Your task to perform on an android device: clear history in the chrome app Image 0: 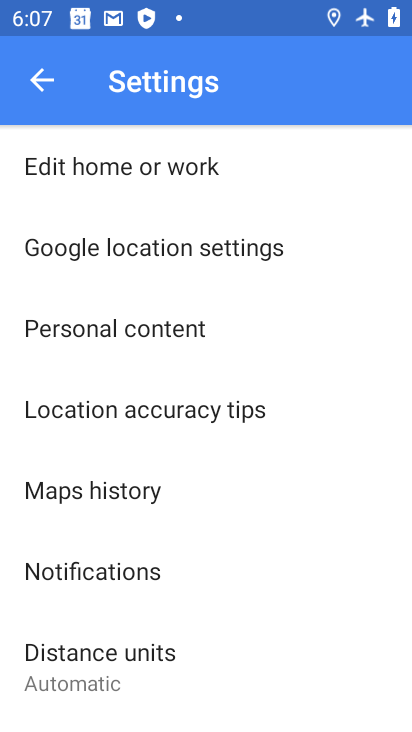
Step 0: press home button
Your task to perform on an android device: clear history in the chrome app Image 1: 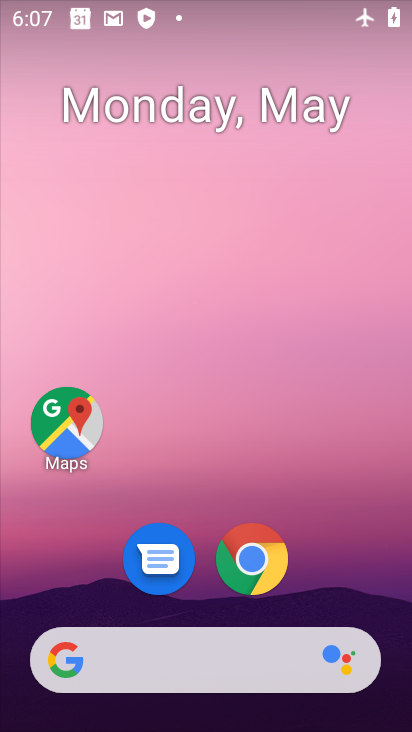
Step 1: click (249, 563)
Your task to perform on an android device: clear history in the chrome app Image 2: 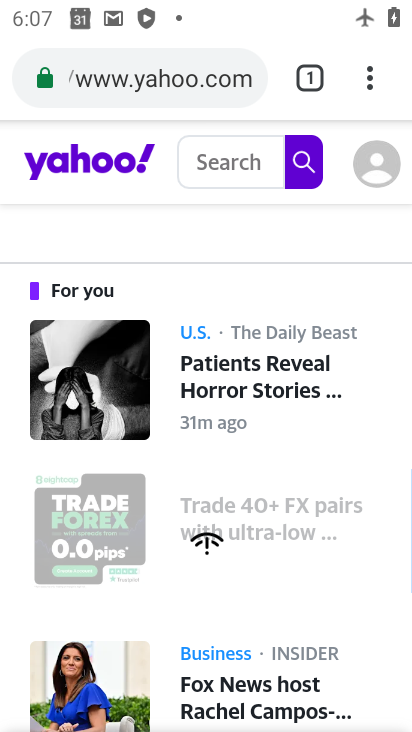
Step 2: click (372, 75)
Your task to perform on an android device: clear history in the chrome app Image 3: 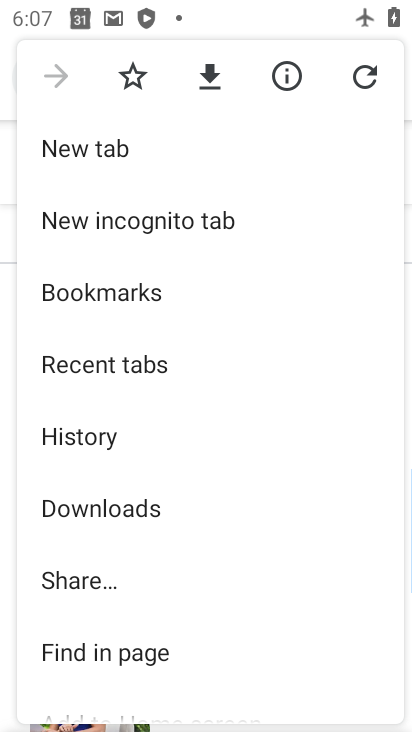
Step 3: click (108, 435)
Your task to perform on an android device: clear history in the chrome app Image 4: 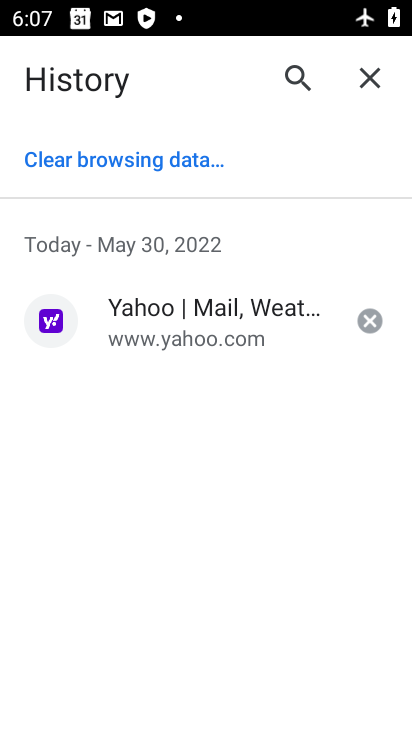
Step 4: click (118, 151)
Your task to perform on an android device: clear history in the chrome app Image 5: 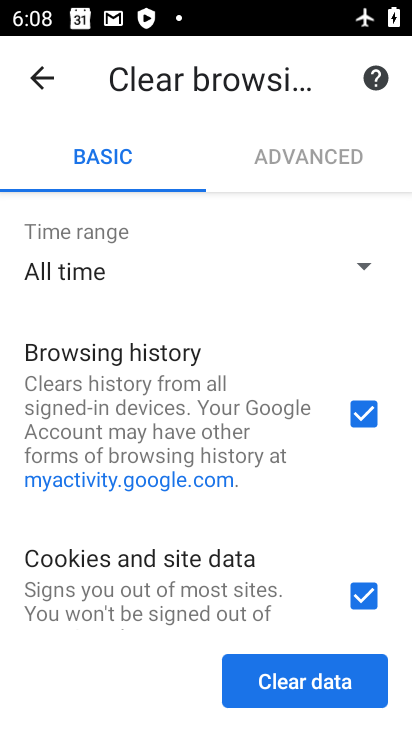
Step 5: click (320, 677)
Your task to perform on an android device: clear history in the chrome app Image 6: 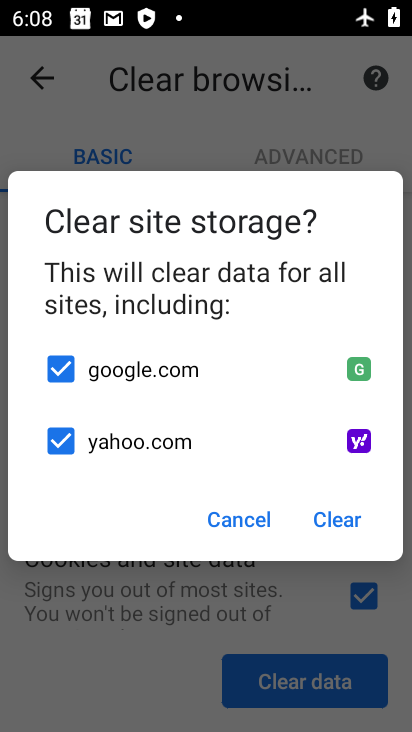
Step 6: click (339, 522)
Your task to perform on an android device: clear history in the chrome app Image 7: 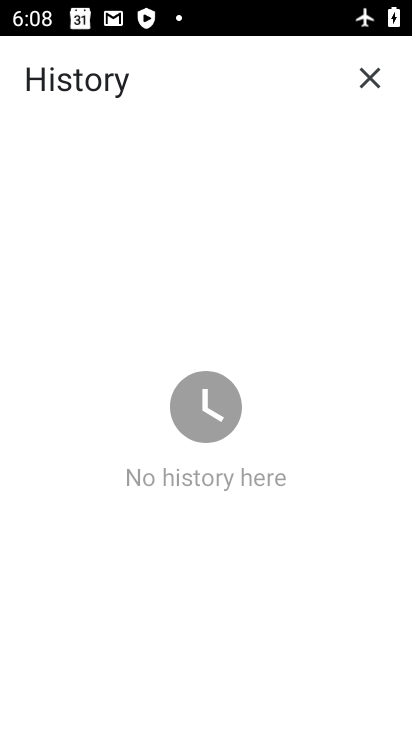
Step 7: task complete